Your task to perform on an android device: show emergency info Image 0: 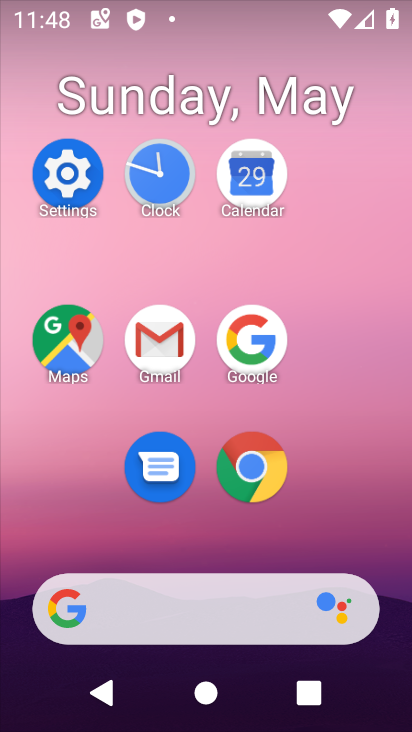
Step 0: click (76, 190)
Your task to perform on an android device: show emergency info Image 1: 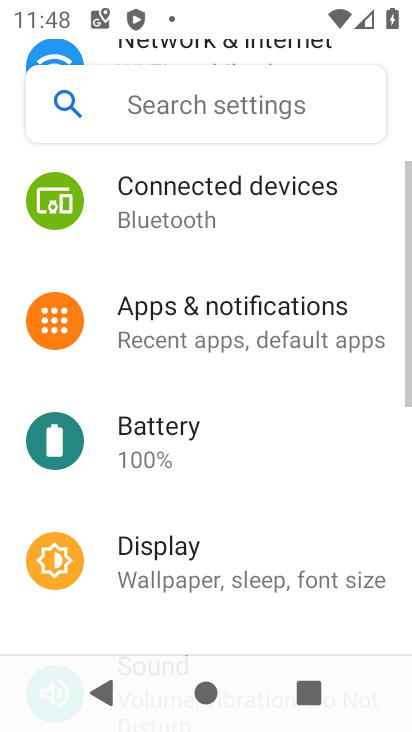
Step 1: drag from (244, 582) to (235, 202)
Your task to perform on an android device: show emergency info Image 2: 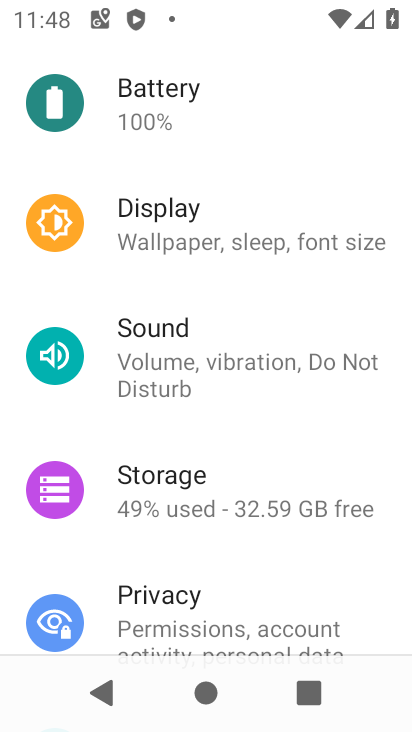
Step 2: drag from (278, 573) to (262, 191)
Your task to perform on an android device: show emergency info Image 3: 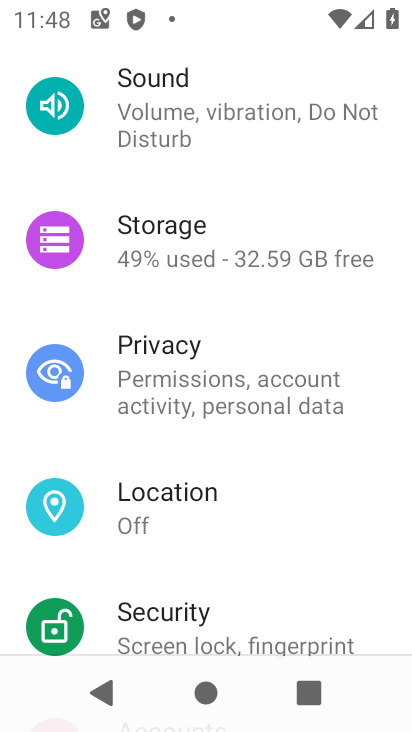
Step 3: drag from (274, 586) to (273, 66)
Your task to perform on an android device: show emergency info Image 4: 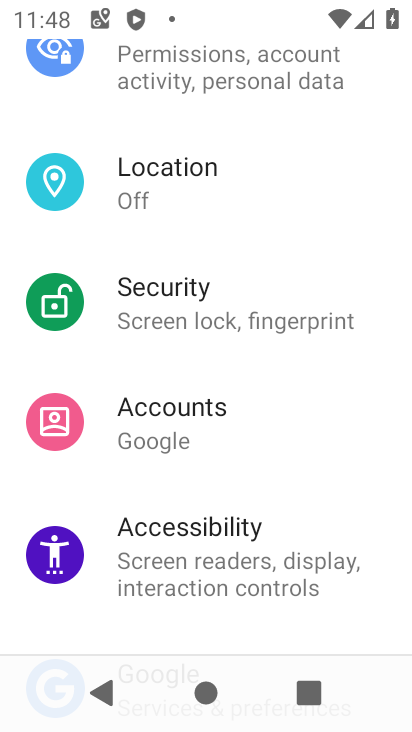
Step 4: drag from (315, 447) to (291, 146)
Your task to perform on an android device: show emergency info Image 5: 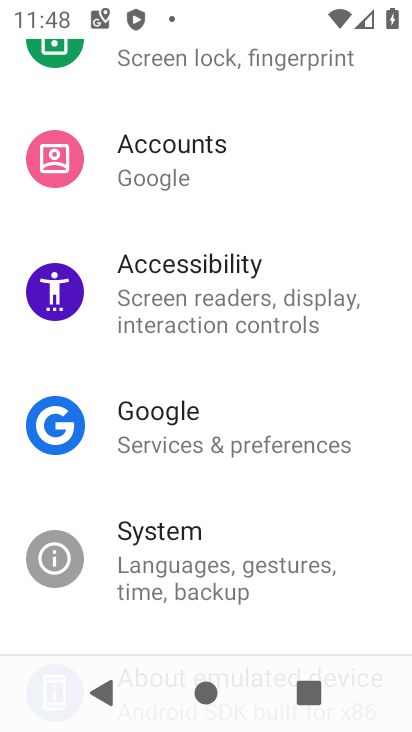
Step 5: drag from (273, 259) to (258, 177)
Your task to perform on an android device: show emergency info Image 6: 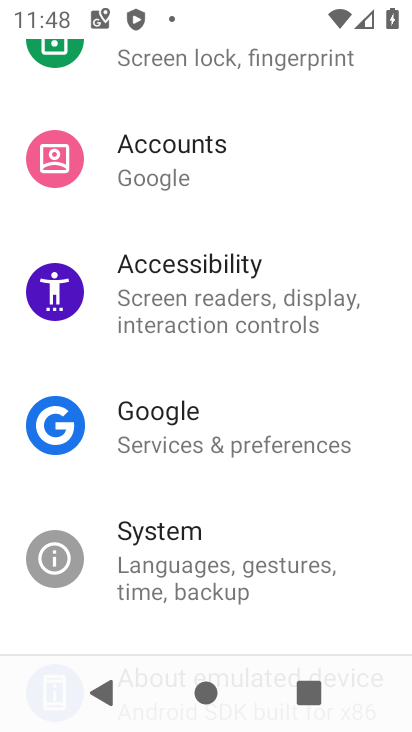
Step 6: drag from (344, 594) to (316, 259)
Your task to perform on an android device: show emergency info Image 7: 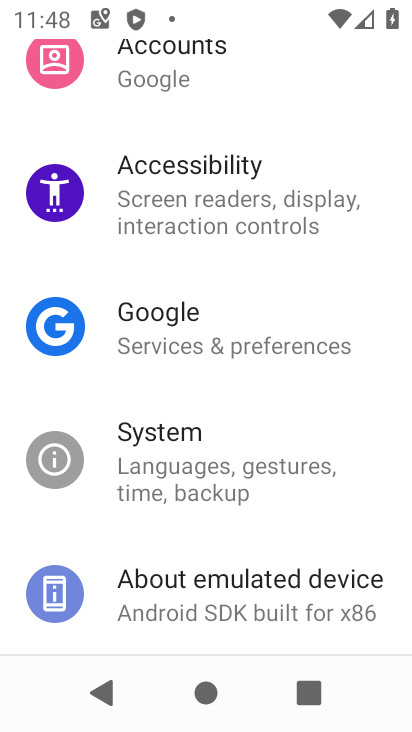
Step 7: click (257, 599)
Your task to perform on an android device: show emergency info Image 8: 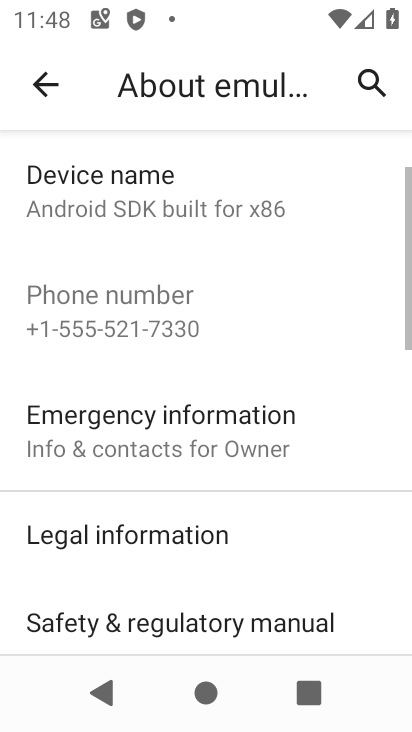
Step 8: click (218, 426)
Your task to perform on an android device: show emergency info Image 9: 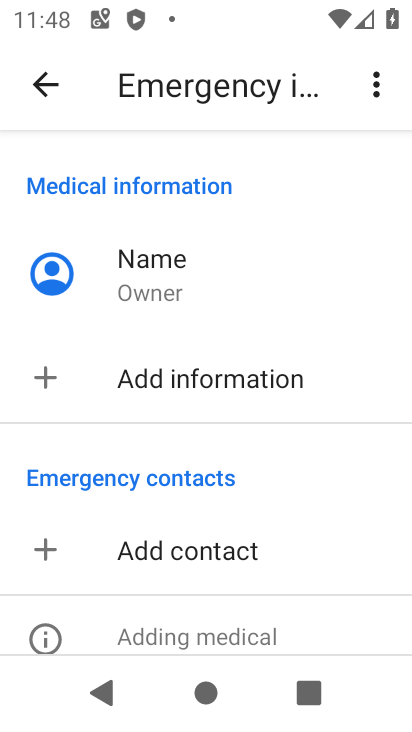
Step 9: task complete